Your task to perform on an android device: Open Google Chrome and click the shortcut for Amazon.com Image 0: 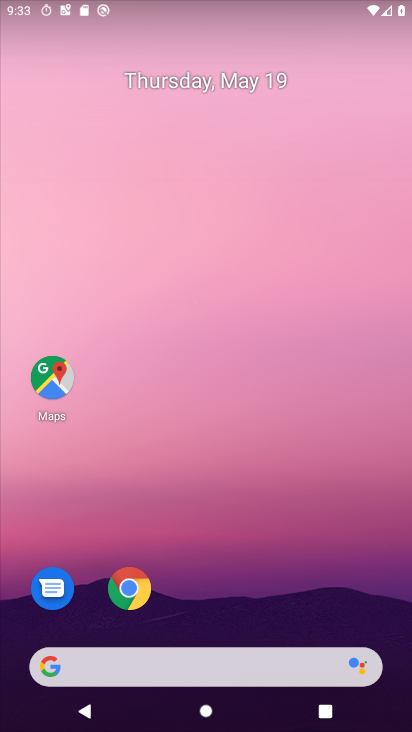
Step 0: press home button
Your task to perform on an android device: Open Google Chrome and click the shortcut for Amazon.com Image 1: 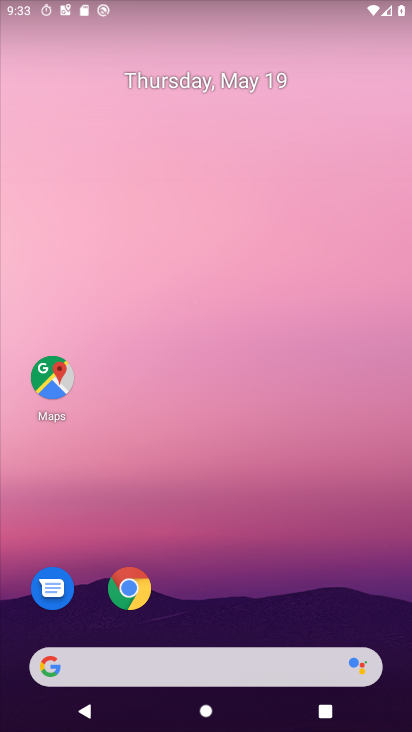
Step 1: click (132, 597)
Your task to perform on an android device: Open Google Chrome and click the shortcut for Amazon.com Image 2: 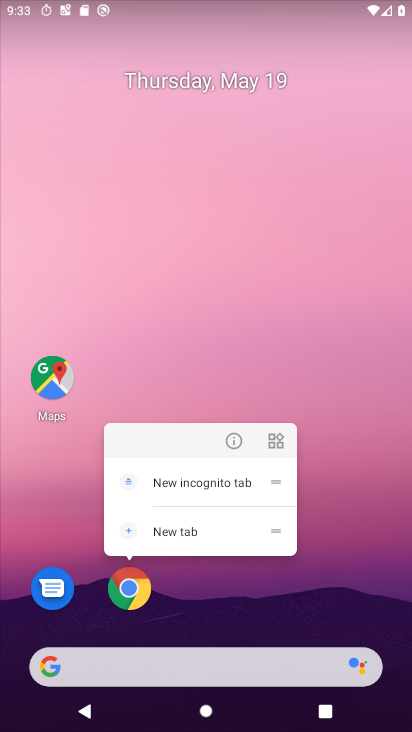
Step 2: click (132, 584)
Your task to perform on an android device: Open Google Chrome and click the shortcut for Amazon.com Image 3: 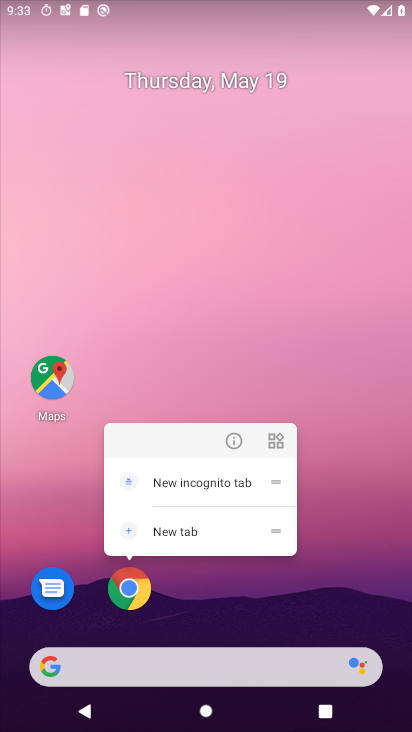
Step 3: click (129, 587)
Your task to perform on an android device: Open Google Chrome and click the shortcut for Amazon.com Image 4: 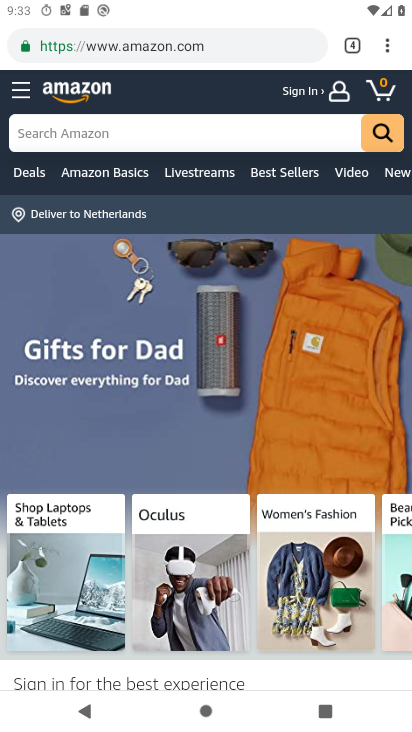
Step 4: task complete